Your task to perform on an android device: toggle improve location accuracy Image 0: 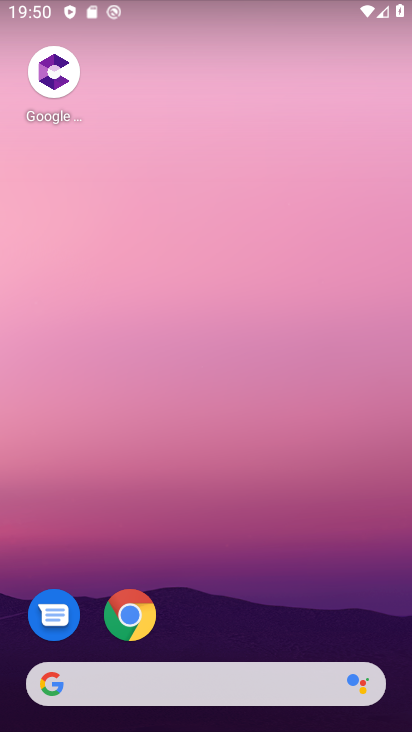
Step 0: drag from (261, 517) to (340, 0)
Your task to perform on an android device: toggle improve location accuracy Image 1: 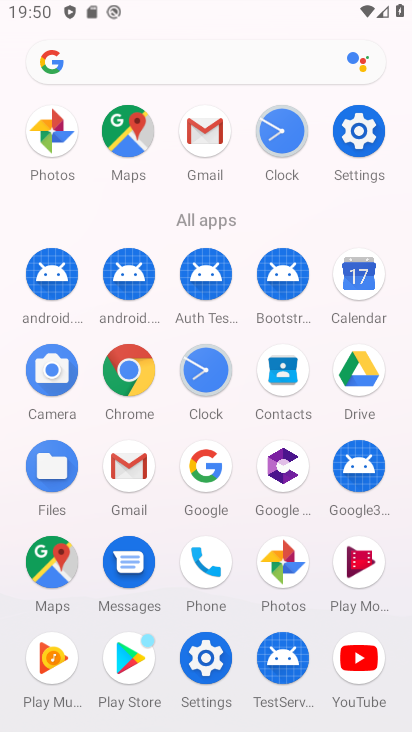
Step 1: click (348, 142)
Your task to perform on an android device: toggle improve location accuracy Image 2: 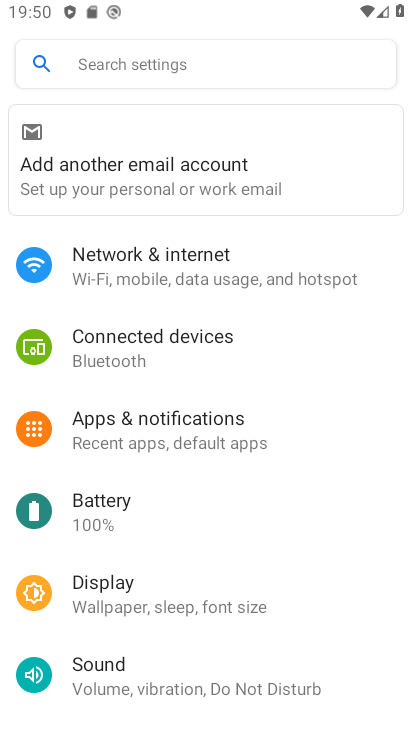
Step 2: drag from (189, 645) to (316, 170)
Your task to perform on an android device: toggle improve location accuracy Image 3: 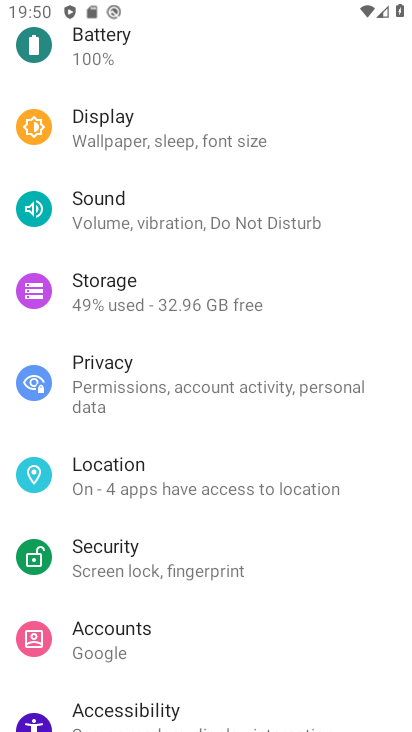
Step 3: click (157, 476)
Your task to perform on an android device: toggle improve location accuracy Image 4: 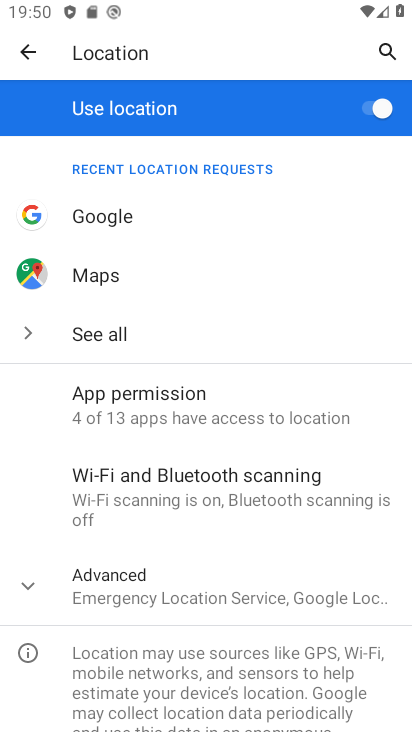
Step 4: click (131, 576)
Your task to perform on an android device: toggle improve location accuracy Image 5: 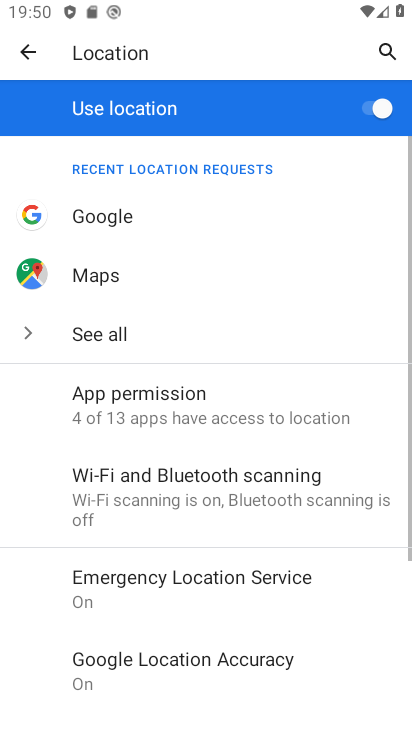
Step 5: drag from (196, 676) to (265, 347)
Your task to perform on an android device: toggle improve location accuracy Image 6: 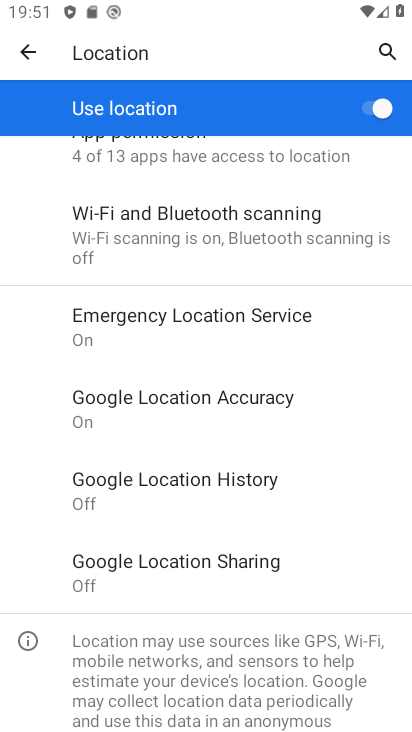
Step 6: click (222, 399)
Your task to perform on an android device: toggle improve location accuracy Image 7: 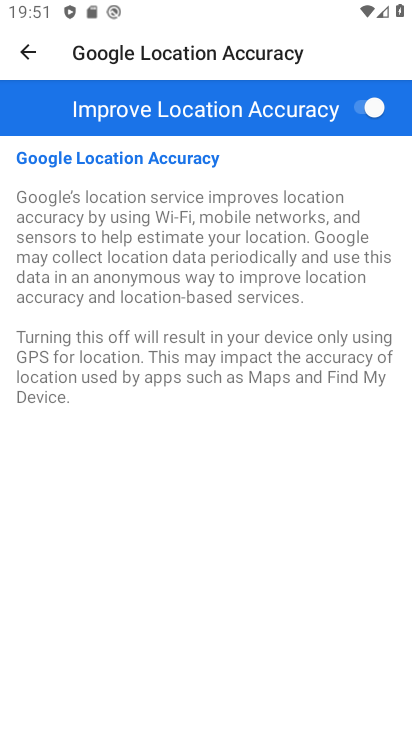
Step 7: click (366, 110)
Your task to perform on an android device: toggle improve location accuracy Image 8: 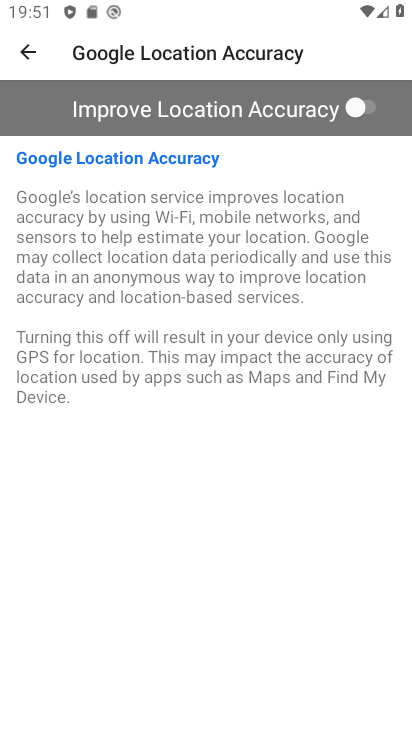
Step 8: task complete